Your task to perform on an android device: Go to network settings Image 0: 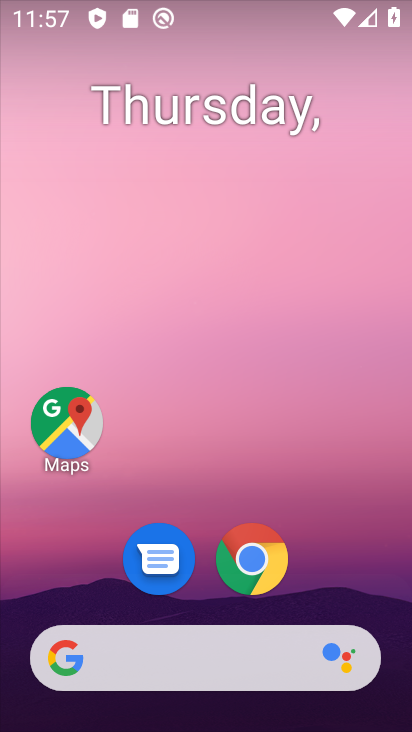
Step 0: drag from (327, 578) to (259, 134)
Your task to perform on an android device: Go to network settings Image 1: 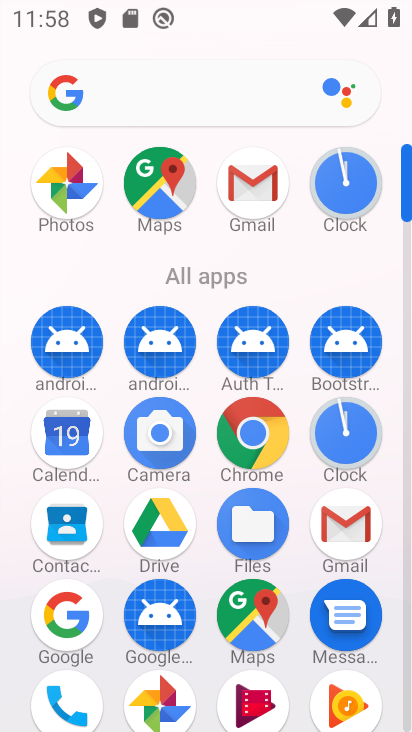
Step 1: click (407, 701)
Your task to perform on an android device: Go to network settings Image 2: 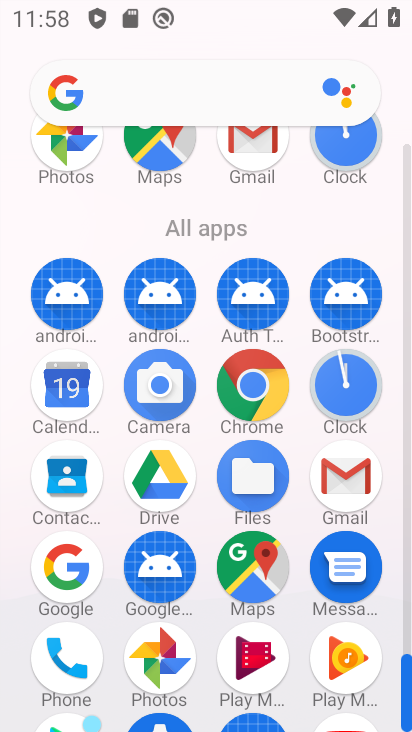
Step 2: click (404, 709)
Your task to perform on an android device: Go to network settings Image 3: 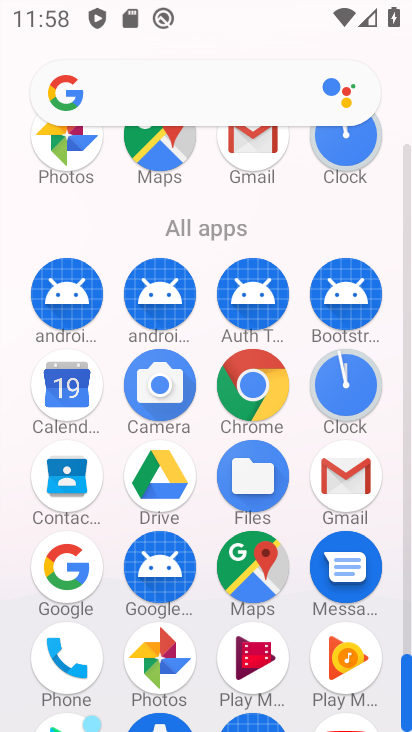
Step 3: click (404, 709)
Your task to perform on an android device: Go to network settings Image 4: 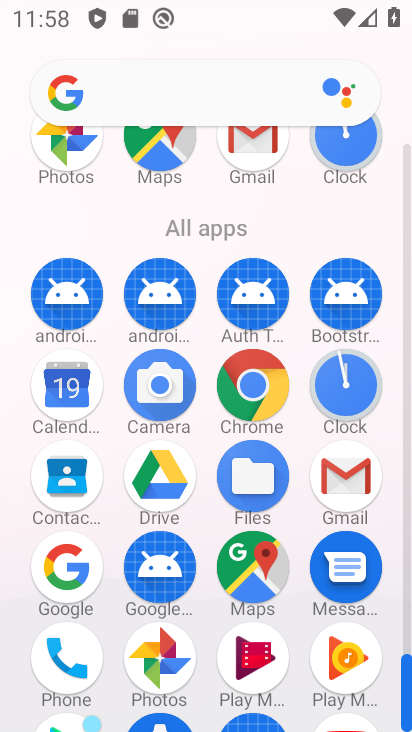
Step 4: click (404, 709)
Your task to perform on an android device: Go to network settings Image 5: 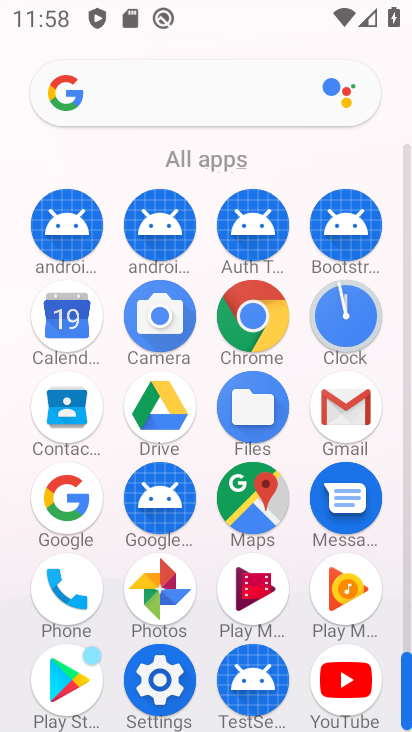
Step 5: click (146, 650)
Your task to perform on an android device: Go to network settings Image 6: 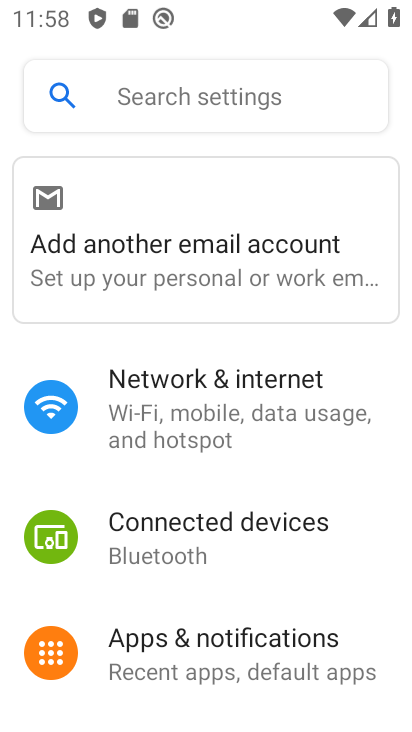
Step 6: click (221, 424)
Your task to perform on an android device: Go to network settings Image 7: 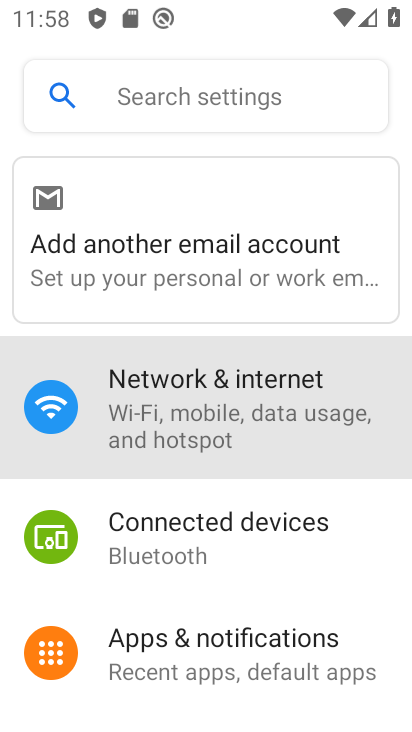
Step 7: task complete